Your task to perform on an android device: turn on notifications settings in the gmail app Image 0: 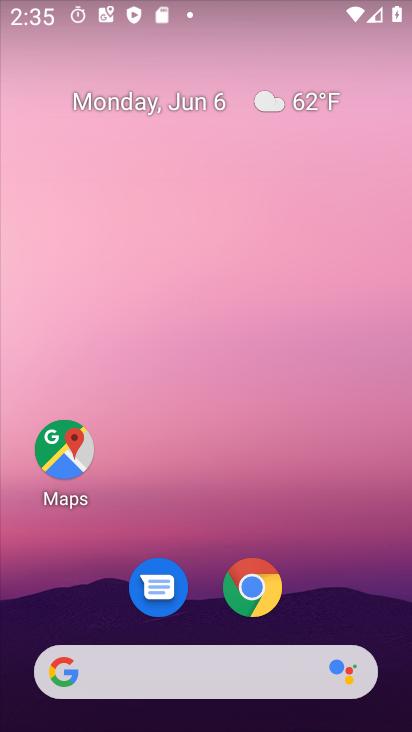
Step 0: drag from (361, 557) to (207, 37)
Your task to perform on an android device: turn on notifications settings in the gmail app Image 1: 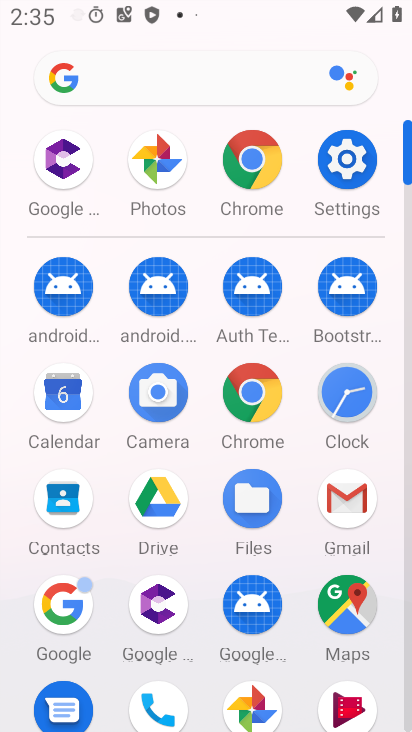
Step 1: click (350, 494)
Your task to perform on an android device: turn on notifications settings in the gmail app Image 2: 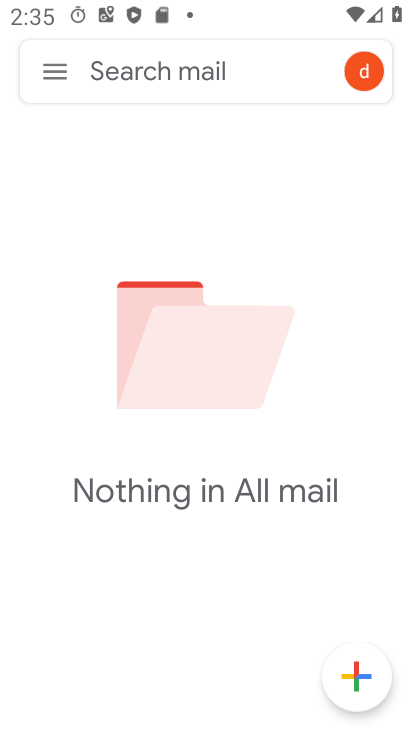
Step 2: click (39, 70)
Your task to perform on an android device: turn on notifications settings in the gmail app Image 3: 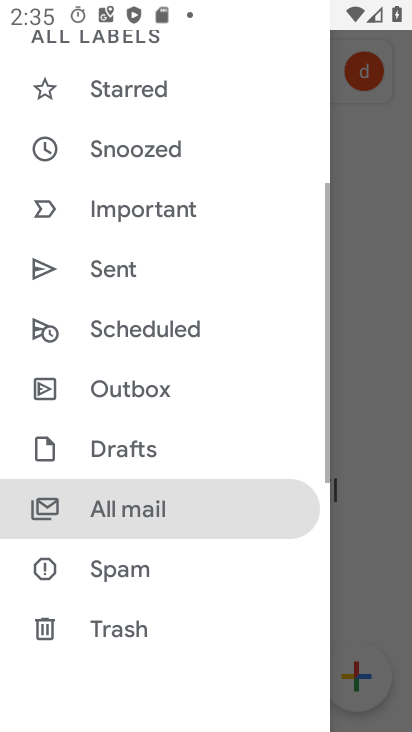
Step 3: drag from (197, 618) to (198, 138)
Your task to perform on an android device: turn on notifications settings in the gmail app Image 4: 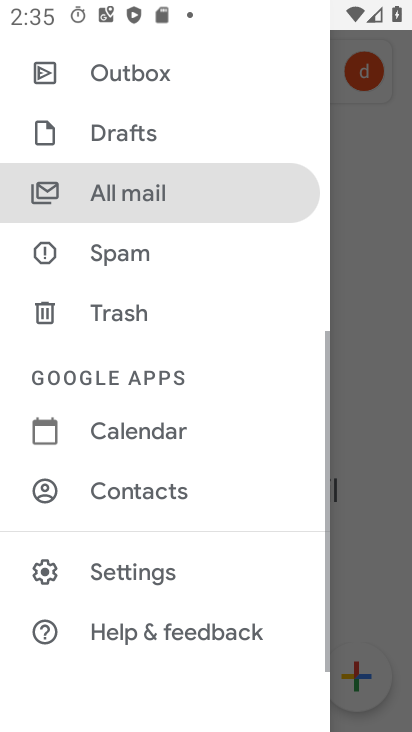
Step 4: click (166, 576)
Your task to perform on an android device: turn on notifications settings in the gmail app Image 5: 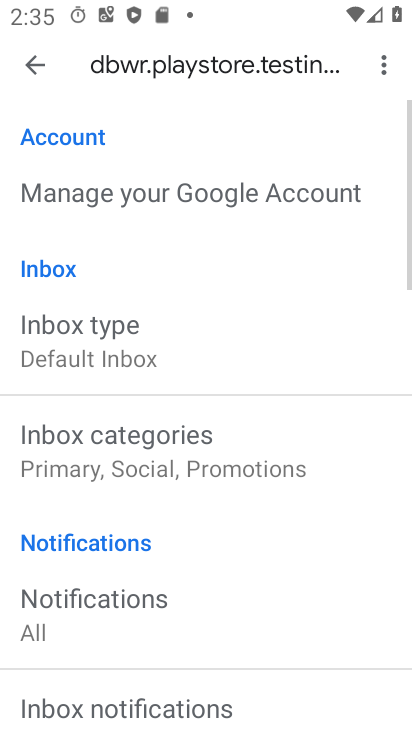
Step 5: drag from (161, 594) to (254, 230)
Your task to perform on an android device: turn on notifications settings in the gmail app Image 6: 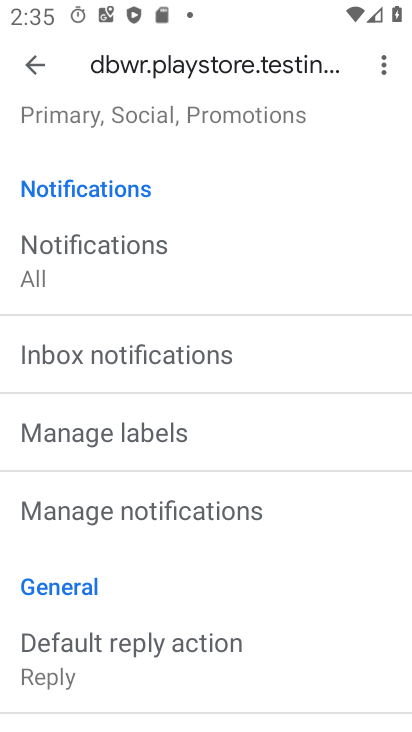
Step 6: click (218, 485)
Your task to perform on an android device: turn on notifications settings in the gmail app Image 7: 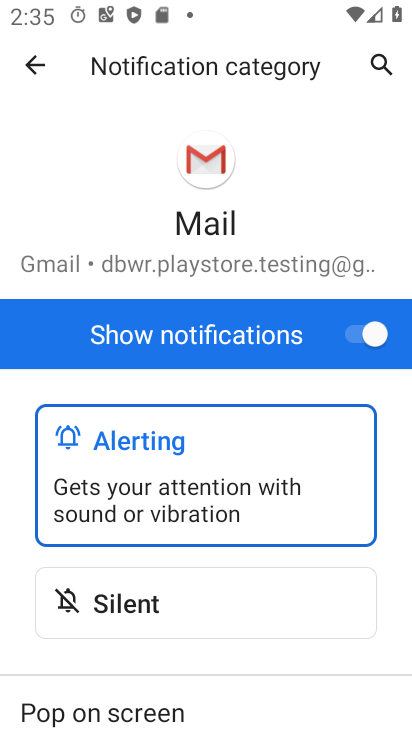
Step 7: task complete